Your task to perform on an android device: Open my contact list Image 0: 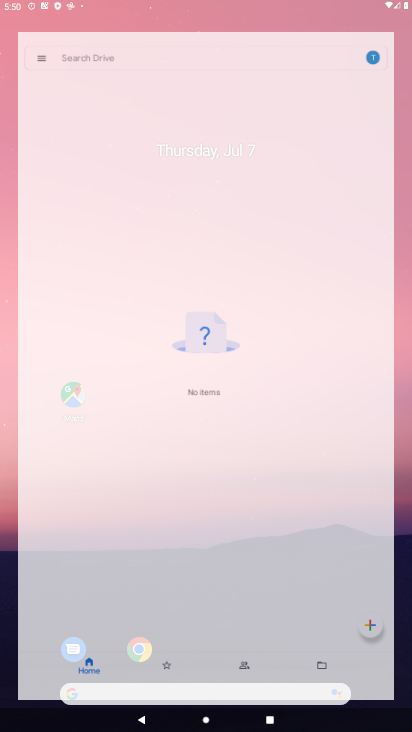
Step 0: drag from (366, 661) to (232, 173)
Your task to perform on an android device: Open my contact list Image 1: 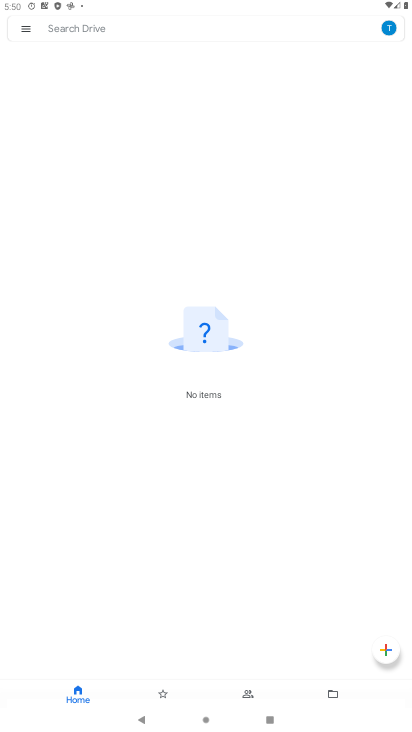
Step 1: press home button
Your task to perform on an android device: Open my contact list Image 2: 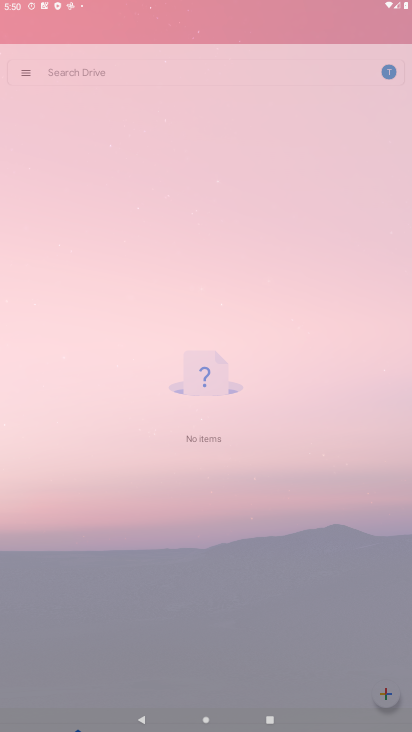
Step 2: drag from (361, 695) to (218, 41)
Your task to perform on an android device: Open my contact list Image 3: 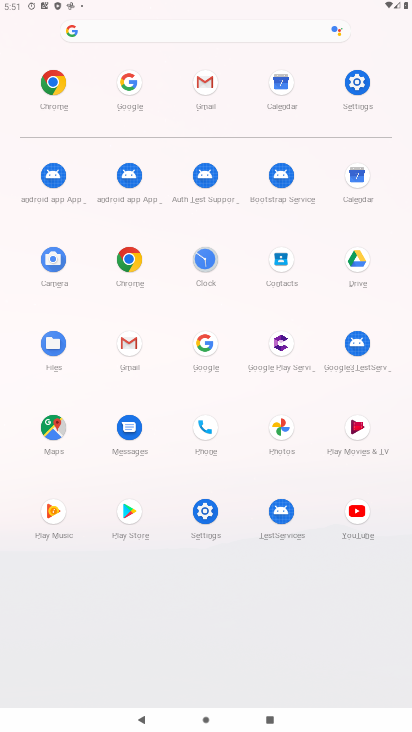
Step 3: click (289, 267)
Your task to perform on an android device: Open my contact list Image 4: 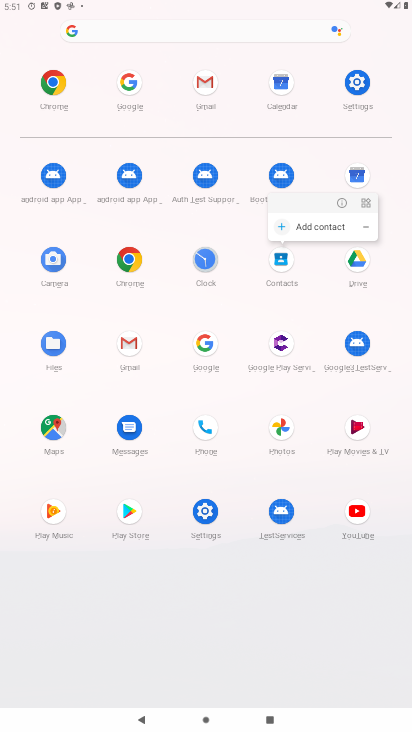
Step 4: click (296, 282)
Your task to perform on an android device: Open my contact list Image 5: 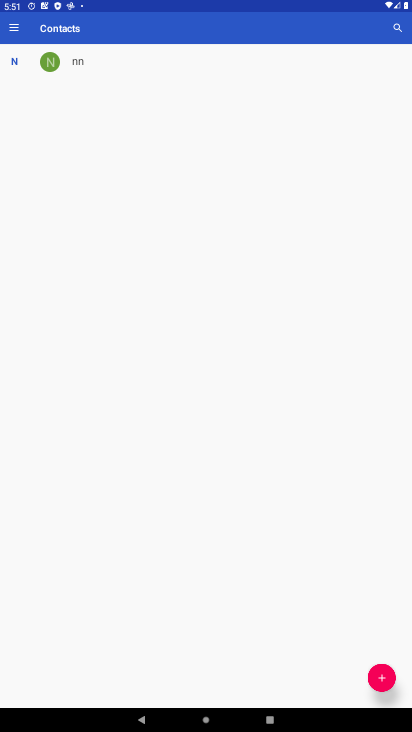
Step 5: click (14, 34)
Your task to perform on an android device: Open my contact list Image 6: 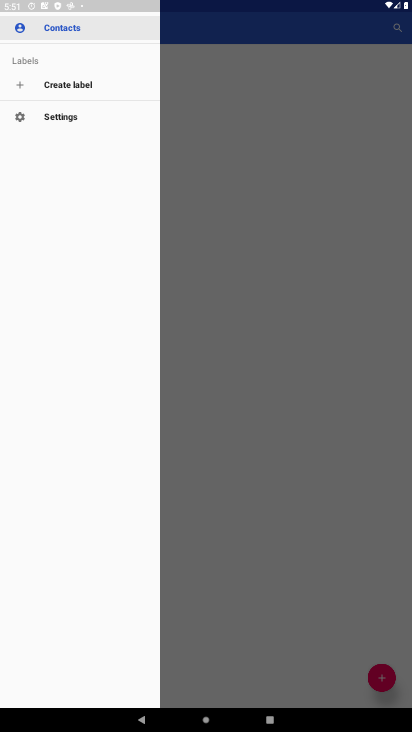
Step 6: task complete